Your task to perform on an android device: Open Google Chrome and open the bookmarks view Image 0: 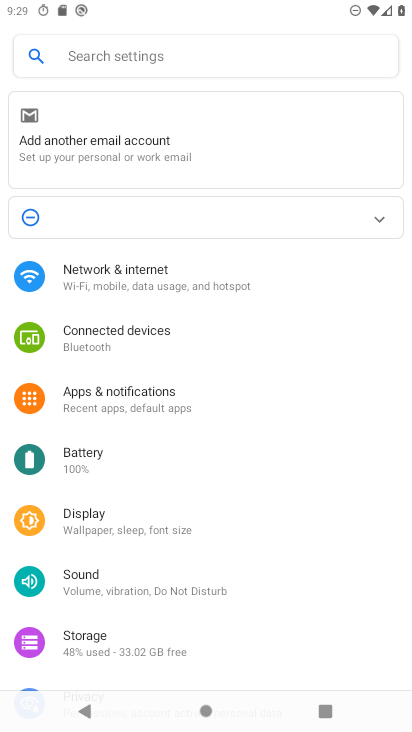
Step 0: press home button
Your task to perform on an android device: Open Google Chrome and open the bookmarks view Image 1: 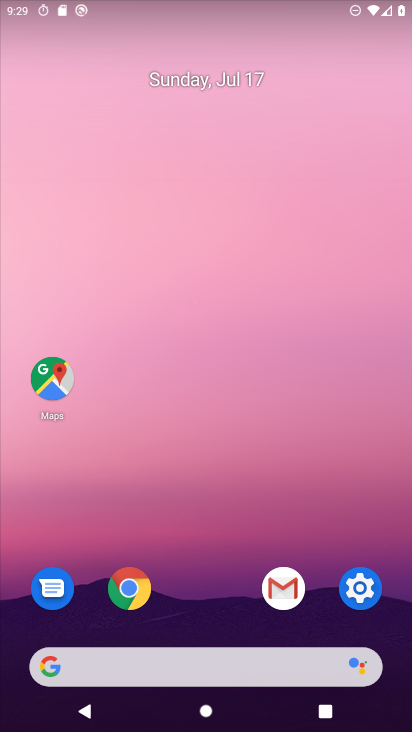
Step 1: click (157, 577)
Your task to perform on an android device: Open Google Chrome and open the bookmarks view Image 2: 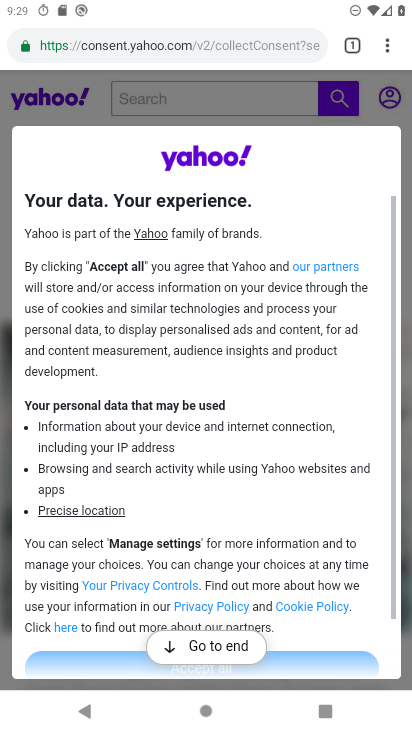
Step 2: click (376, 52)
Your task to perform on an android device: Open Google Chrome and open the bookmarks view Image 3: 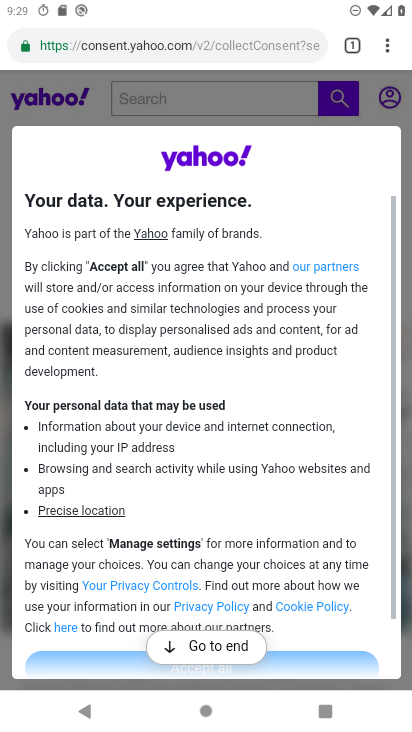
Step 3: click (390, 45)
Your task to perform on an android device: Open Google Chrome and open the bookmarks view Image 4: 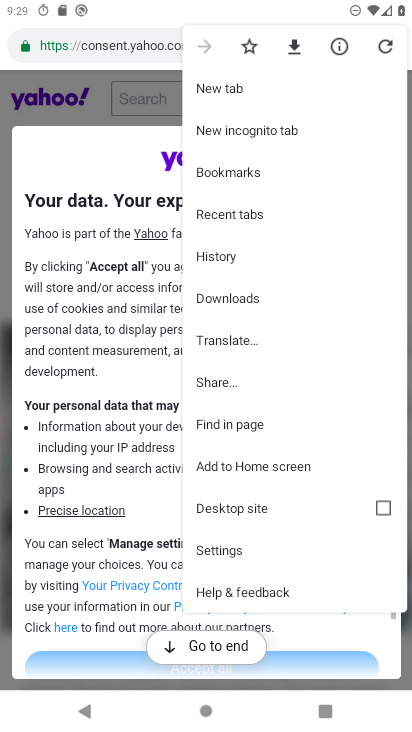
Step 4: click (229, 160)
Your task to perform on an android device: Open Google Chrome and open the bookmarks view Image 5: 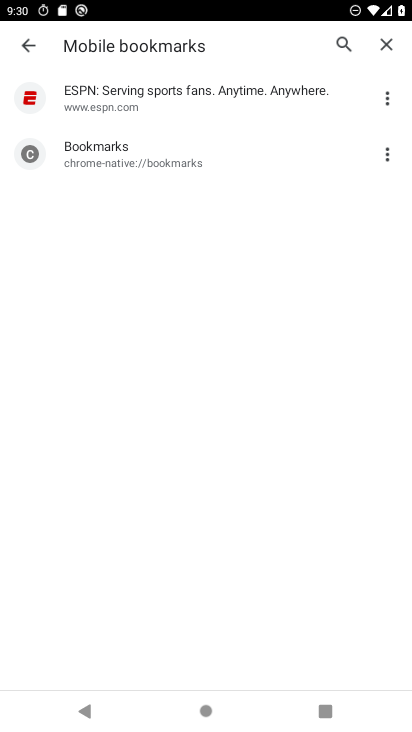
Step 5: task complete